Your task to perform on an android device: Open Maps and search for coffee Image 0: 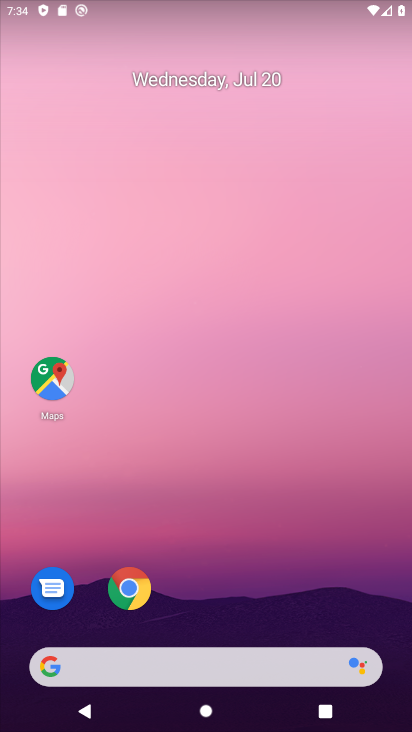
Step 0: click (54, 362)
Your task to perform on an android device: Open Maps and search for coffee Image 1: 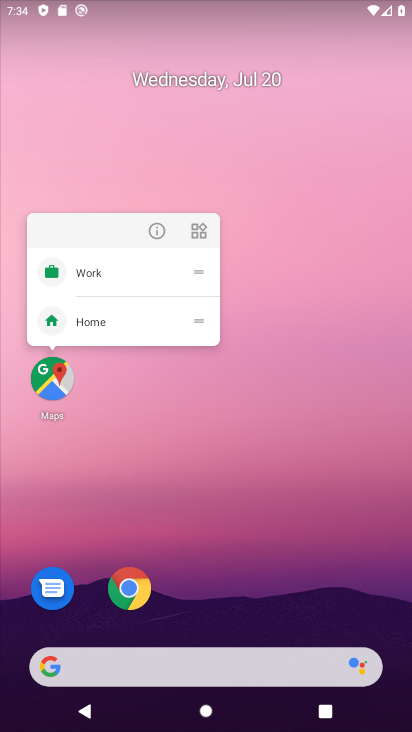
Step 1: click (54, 362)
Your task to perform on an android device: Open Maps and search for coffee Image 2: 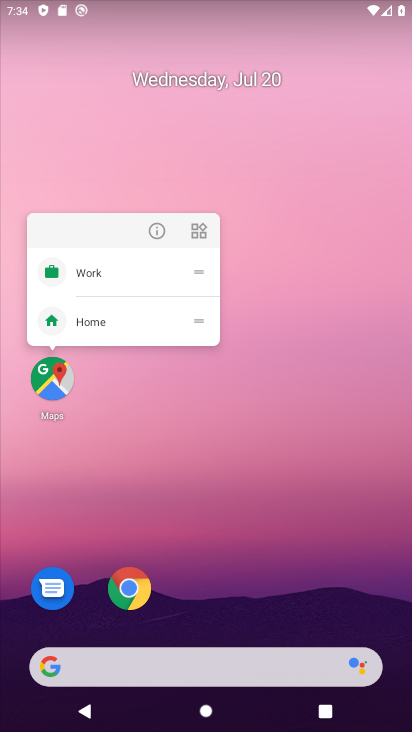
Step 2: click (54, 362)
Your task to perform on an android device: Open Maps and search for coffee Image 3: 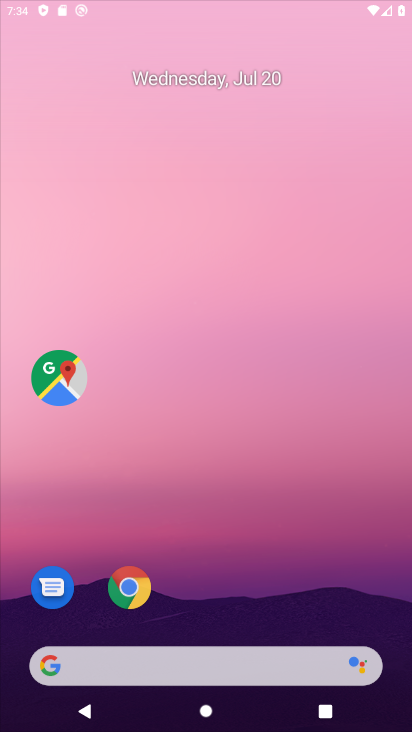
Step 3: click (54, 362)
Your task to perform on an android device: Open Maps and search for coffee Image 4: 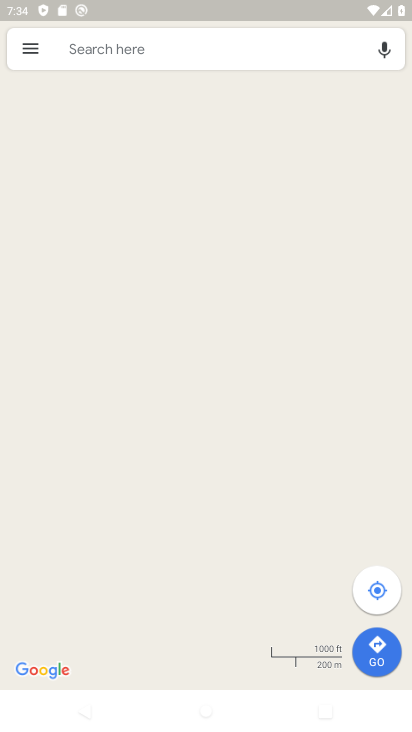
Step 4: click (129, 43)
Your task to perform on an android device: Open Maps and search for coffee Image 5: 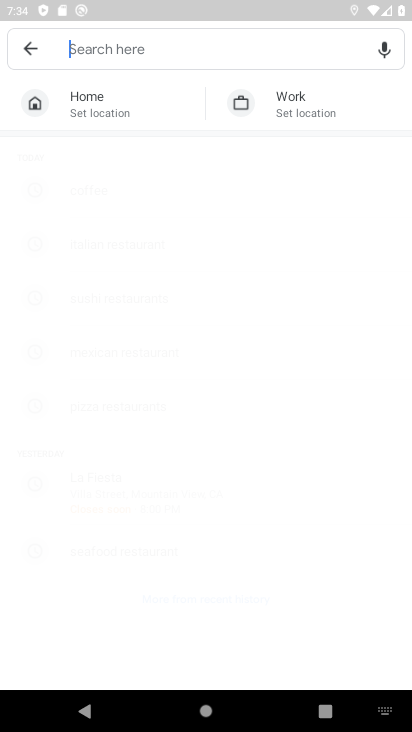
Step 5: type "coffee"
Your task to perform on an android device: Open Maps and search for coffee Image 6: 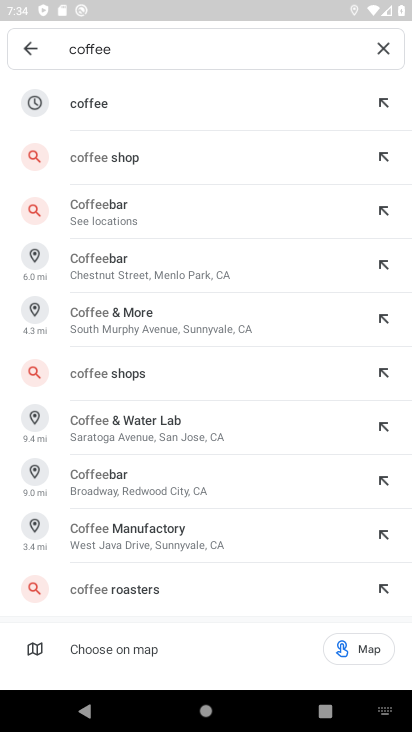
Step 6: click (193, 111)
Your task to perform on an android device: Open Maps and search for coffee Image 7: 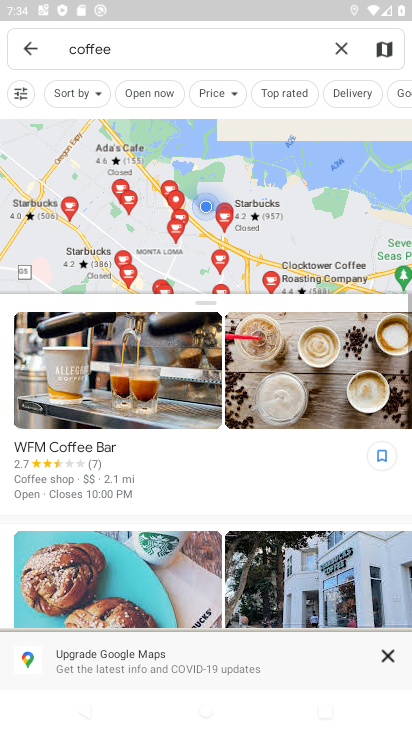
Step 7: task complete